Your task to perform on an android device: Add logitech g502 to the cart on bestbuy, then select checkout. Image 0: 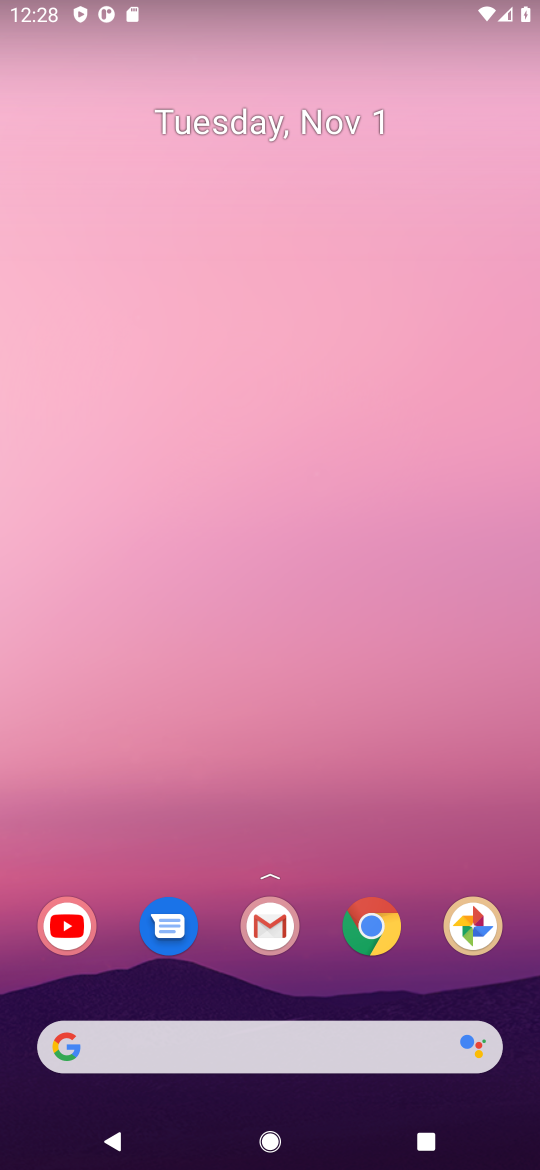
Step 0: click (382, 931)
Your task to perform on an android device: Add logitech g502 to the cart on bestbuy, then select checkout. Image 1: 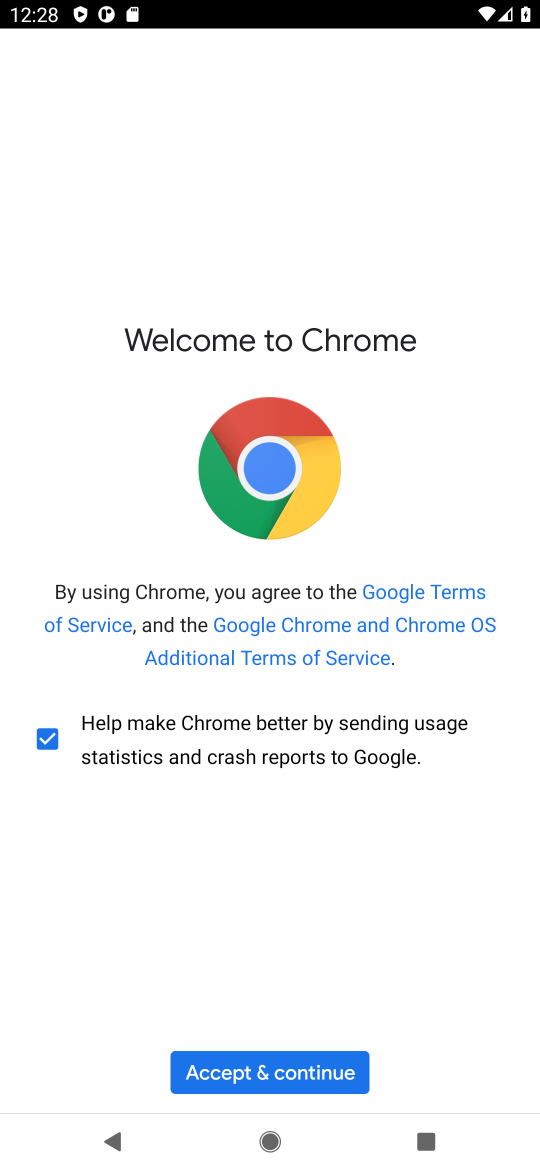
Step 1: click (243, 1083)
Your task to perform on an android device: Add logitech g502 to the cart on bestbuy, then select checkout. Image 2: 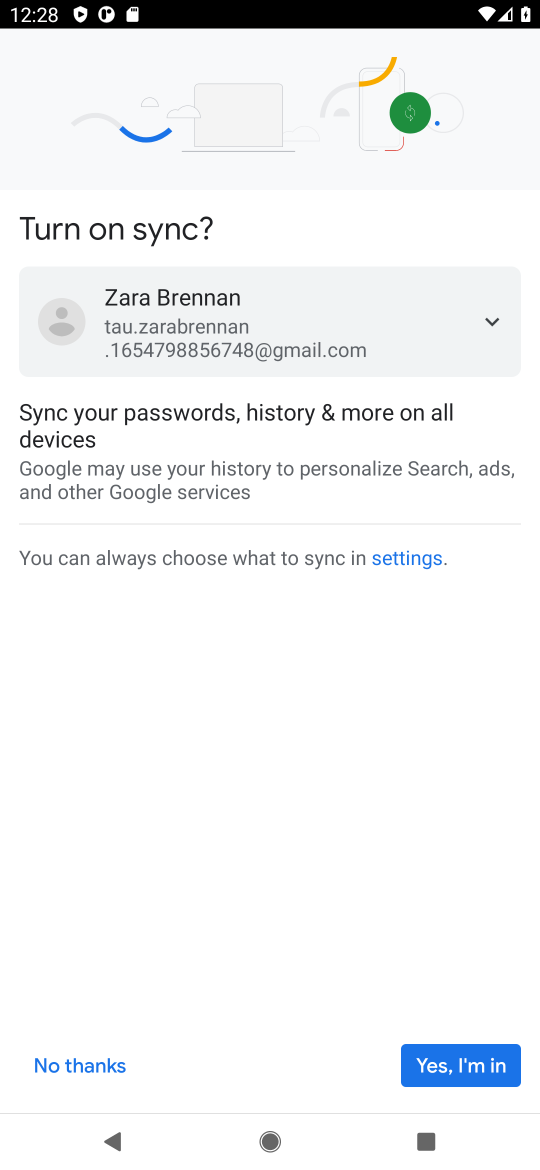
Step 2: click (413, 1059)
Your task to perform on an android device: Add logitech g502 to the cart on bestbuy, then select checkout. Image 3: 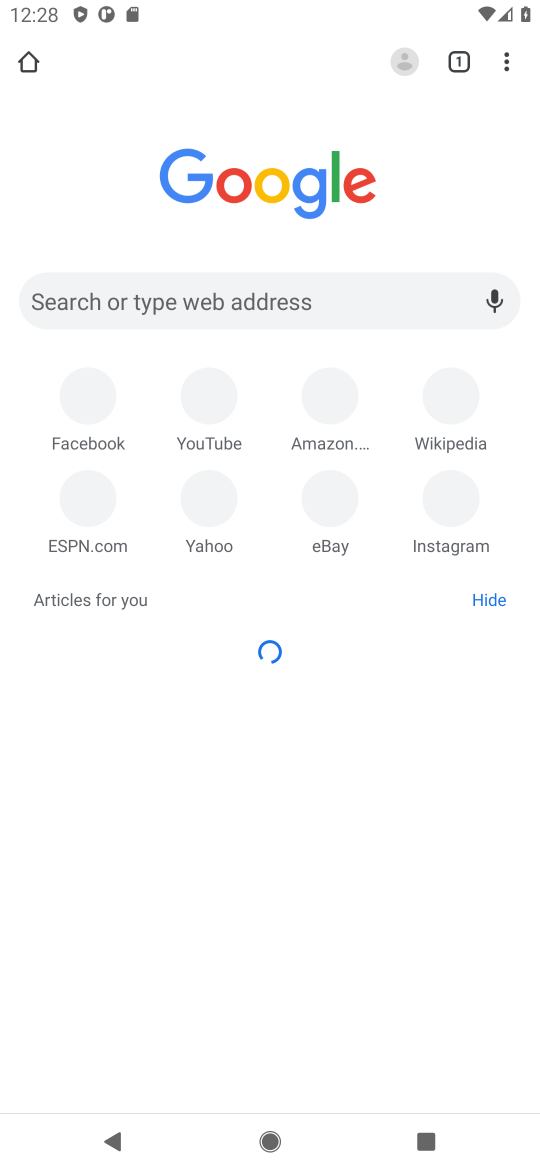
Step 3: click (173, 301)
Your task to perform on an android device: Add logitech g502 to the cart on bestbuy, then select checkout. Image 4: 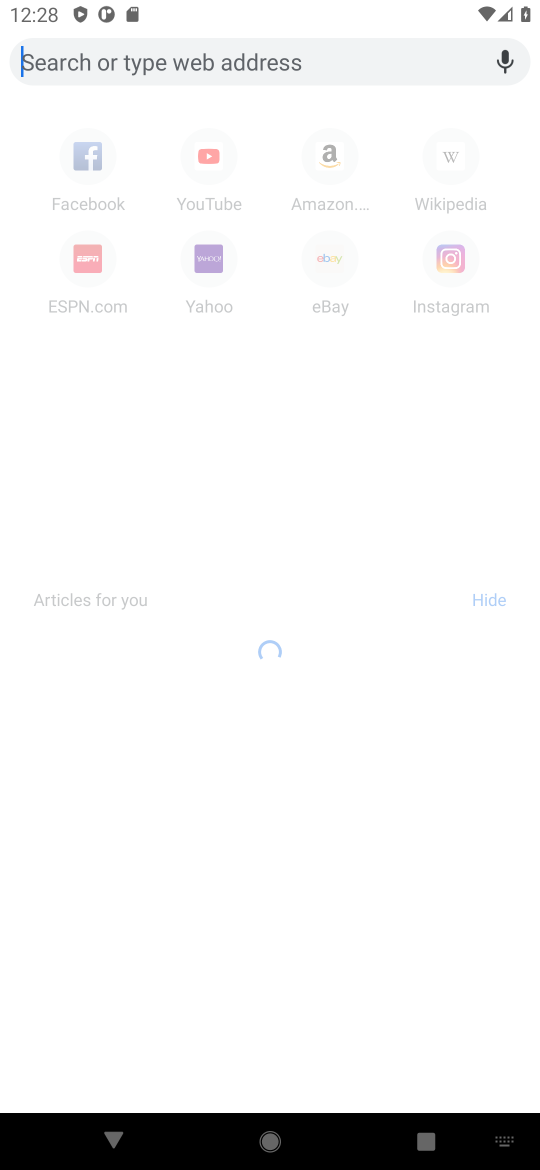
Step 4: type "bestbuy"
Your task to perform on an android device: Add logitech g502 to the cart on bestbuy, then select checkout. Image 5: 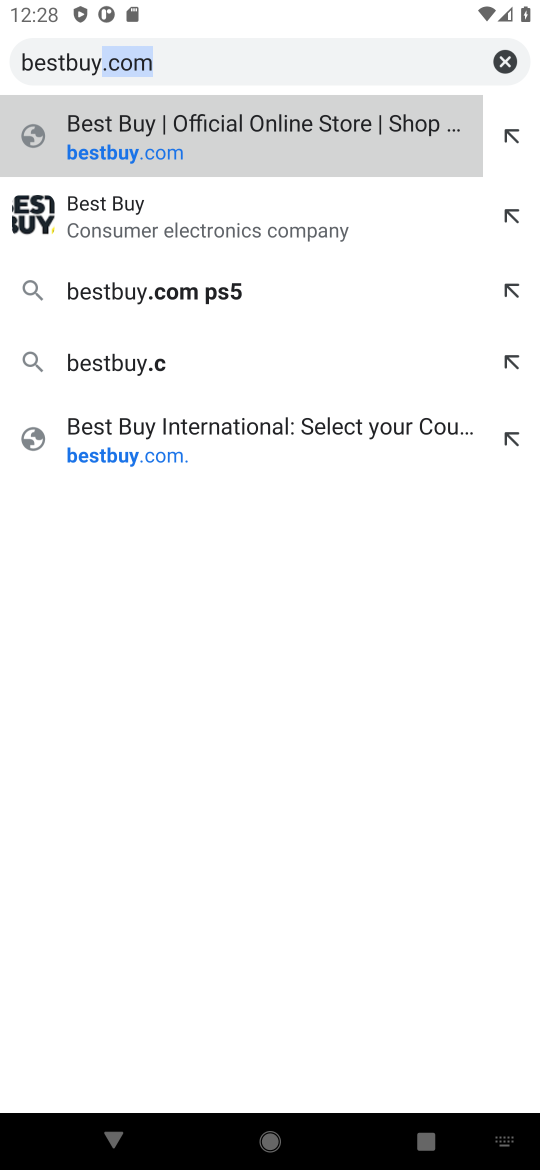
Step 5: click (183, 136)
Your task to perform on an android device: Add logitech g502 to the cart on bestbuy, then select checkout. Image 6: 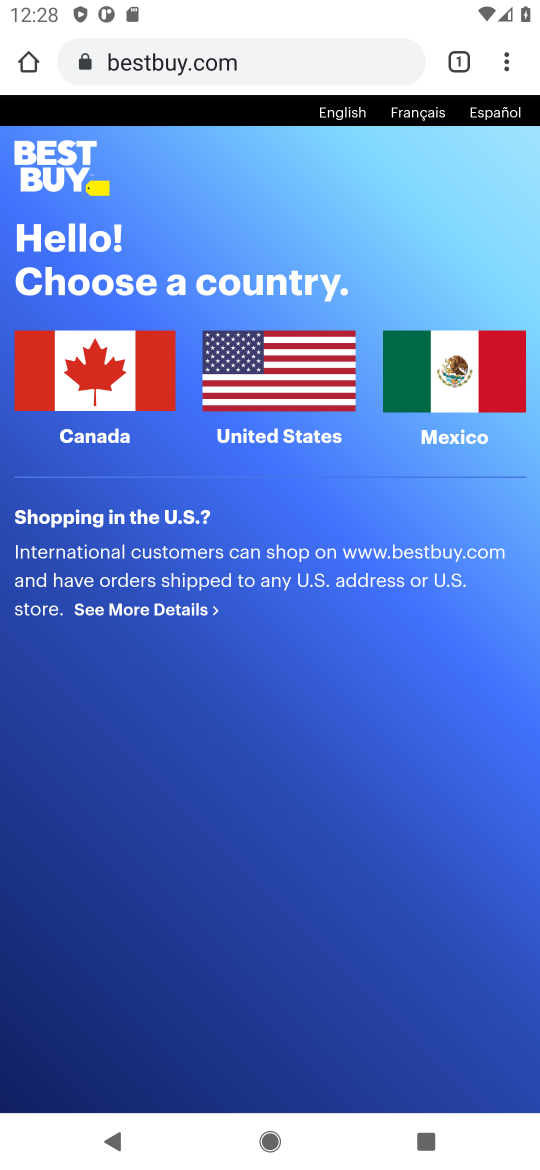
Step 6: click (237, 392)
Your task to perform on an android device: Add logitech g502 to the cart on bestbuy, then select checkout. Image 7: 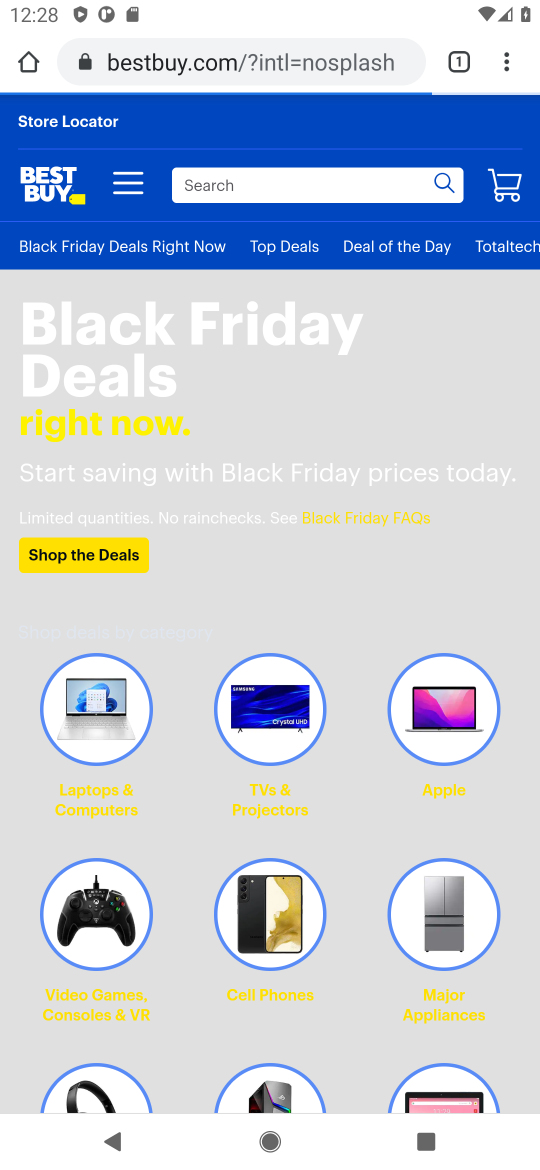
Step 7: click (246, 195)
Your task to perform on an android device: Add logitech g502 to the cart on bestbuy, then select checkout. Image 8: 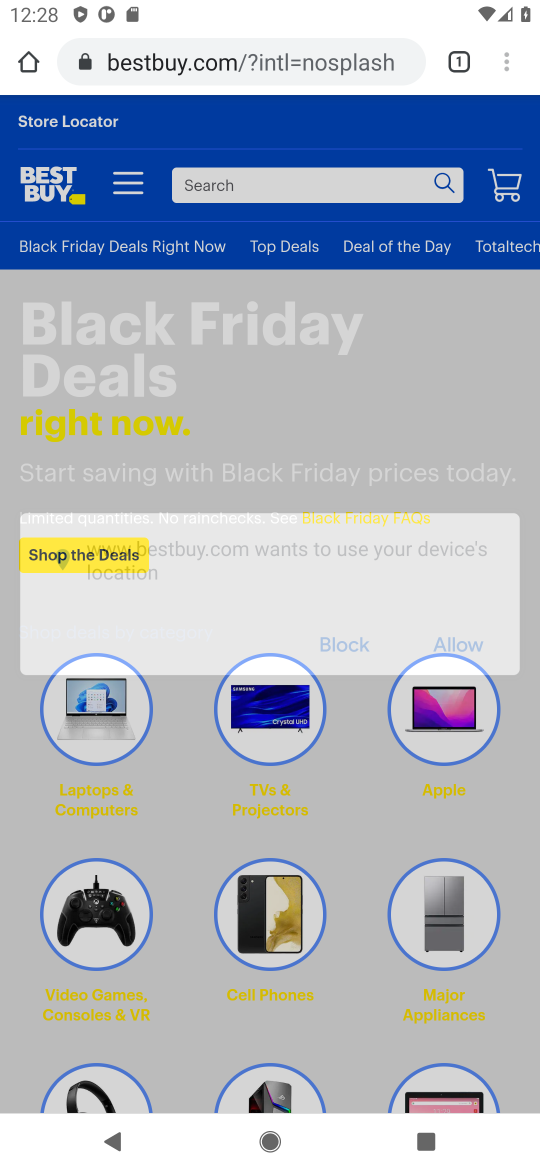
Step 8: type "logitech g502"
Your task to perform on an android device: Add logitech g502 to the cart on bestbuy, then select checkout. Image 9: 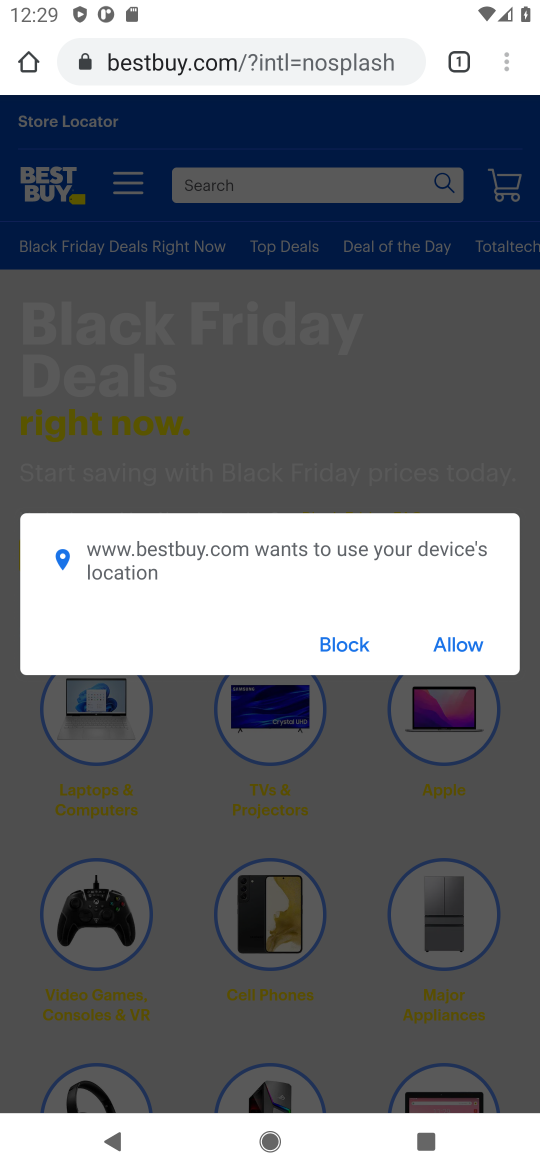
Step 9: click (341, 638)
Your task to perform on an android device: Add logitech g502 to the cart on bestbuy, then select checkout. Image 10: 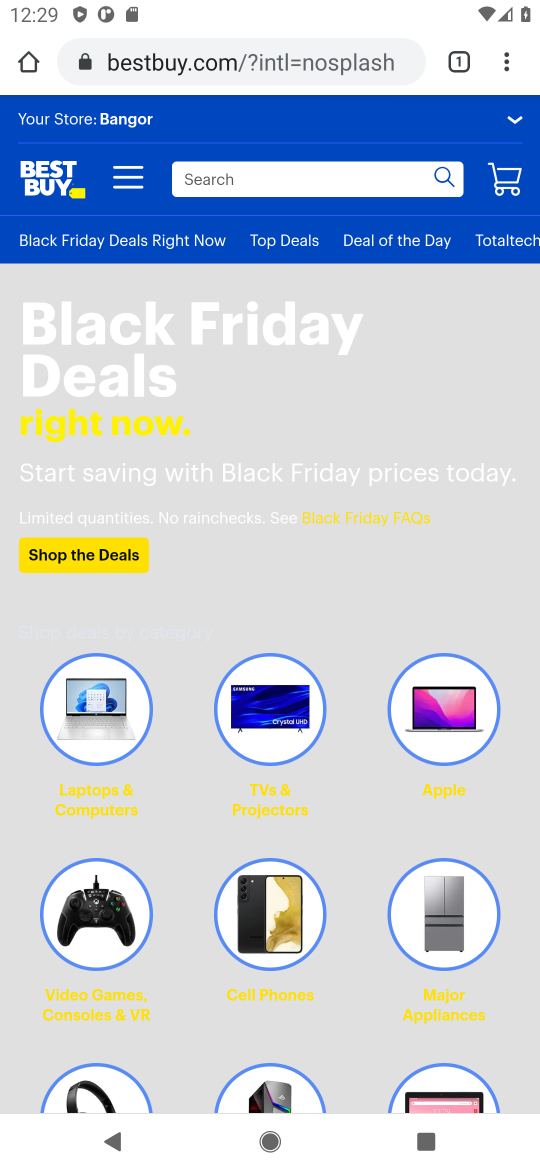
Step 10: click (223, 174)
Your task to perform on an android device: Add logitech g502 to the cart on bestbuy, then select checkout. Image 11: 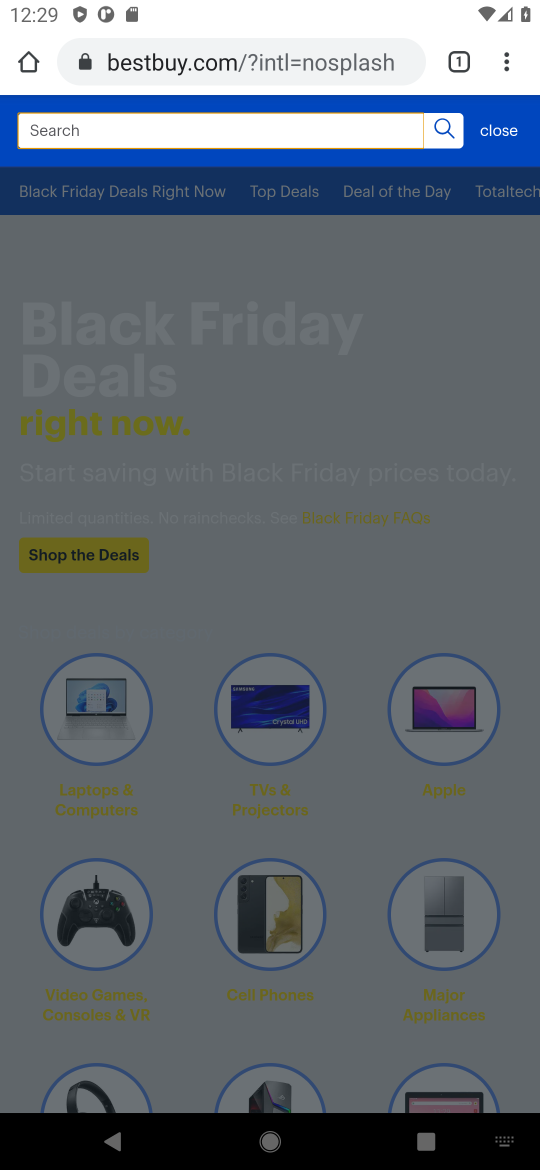
Step 11: type "logitech g502"
Your task to perform on an android device: Add logitech g502 to the cart on bestbuy, then select checkout. Image 12: 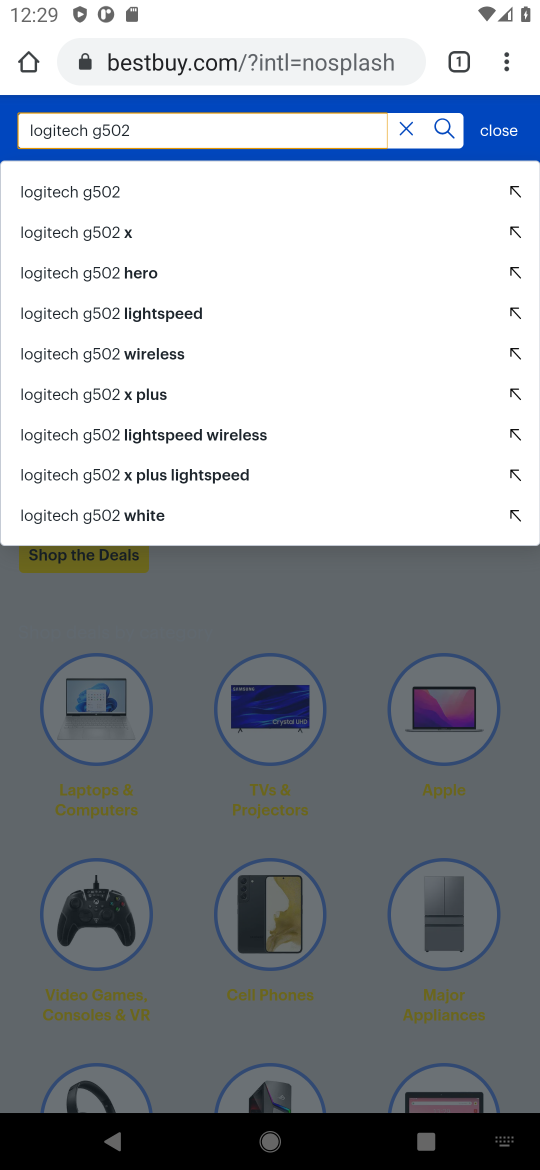
Step 12: click (185, 197)
Your task to perform on an android device: Add logitech g502 to the cart on bestbuy, then select checkout. Image 13: 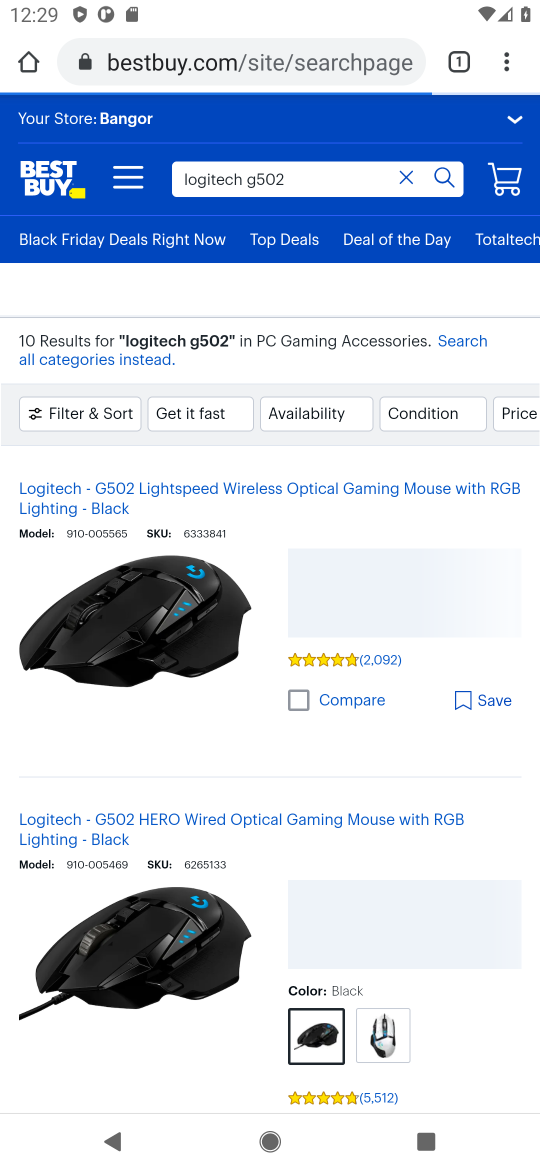
Step 13: click (169, 499)
Your task to perform on an android device: Add logitech g502 to the cart on bestbuy, then select checkout. Image 14: 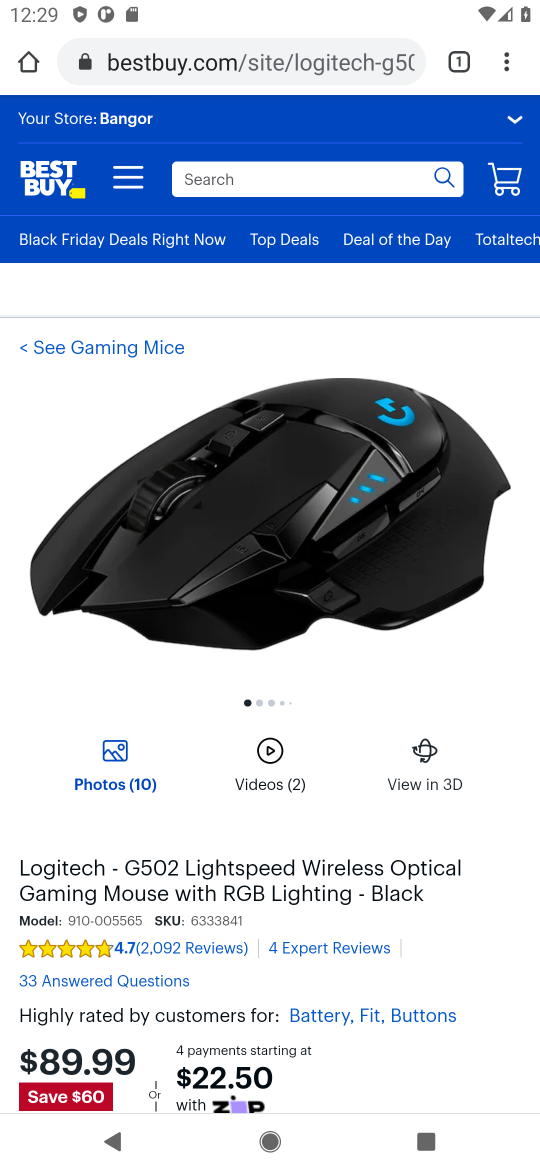
Step 14: drag from (233, 955) to (277, 401)
Your task to perform on an android device: Add logitech g502 to the cart on bestbuy, then select checkout. Image 15: 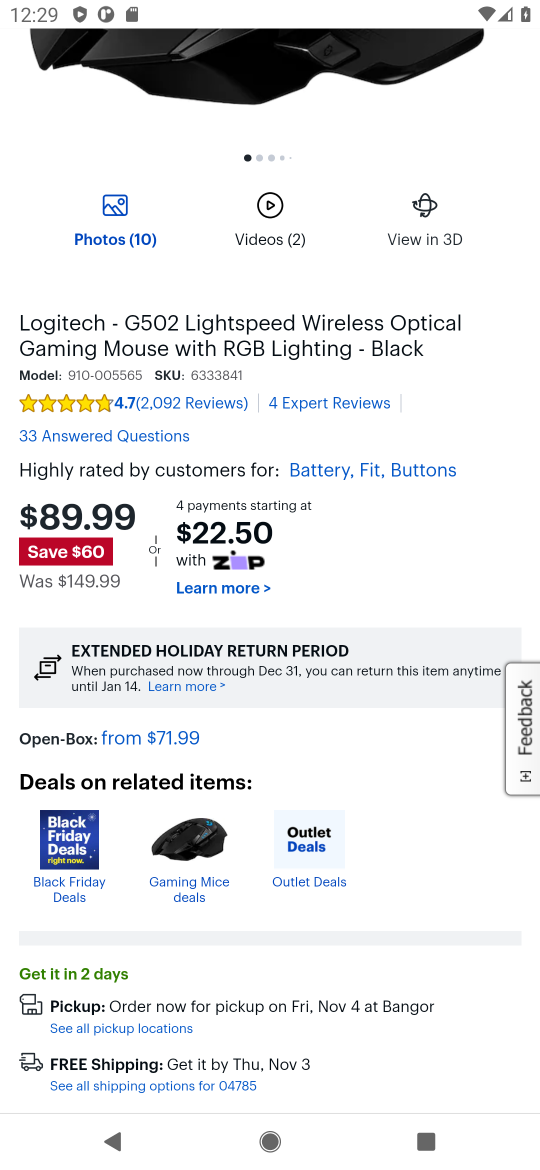
Step 15: drag from (324, 538) to (347, 406)
Your task to perform on an android device: Add logitech g502 to the cart on bestbuy, then select checkout. Image 16: 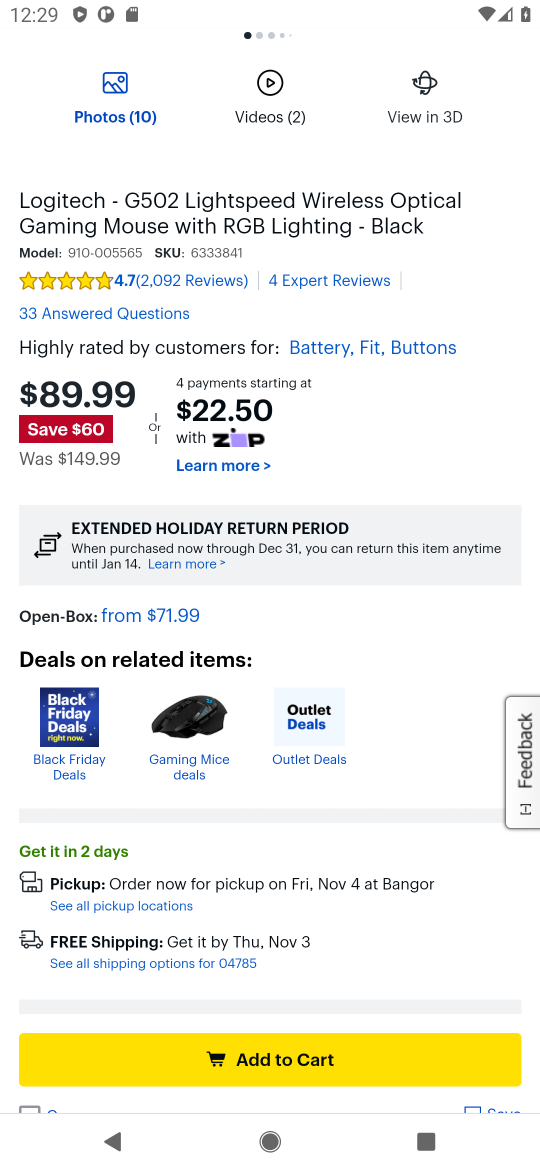
Step 16: click (304, 1052)
Your task to perform on an android device: Add logitech g502 to the cart on bestbuy, then select checkout. Image 17: 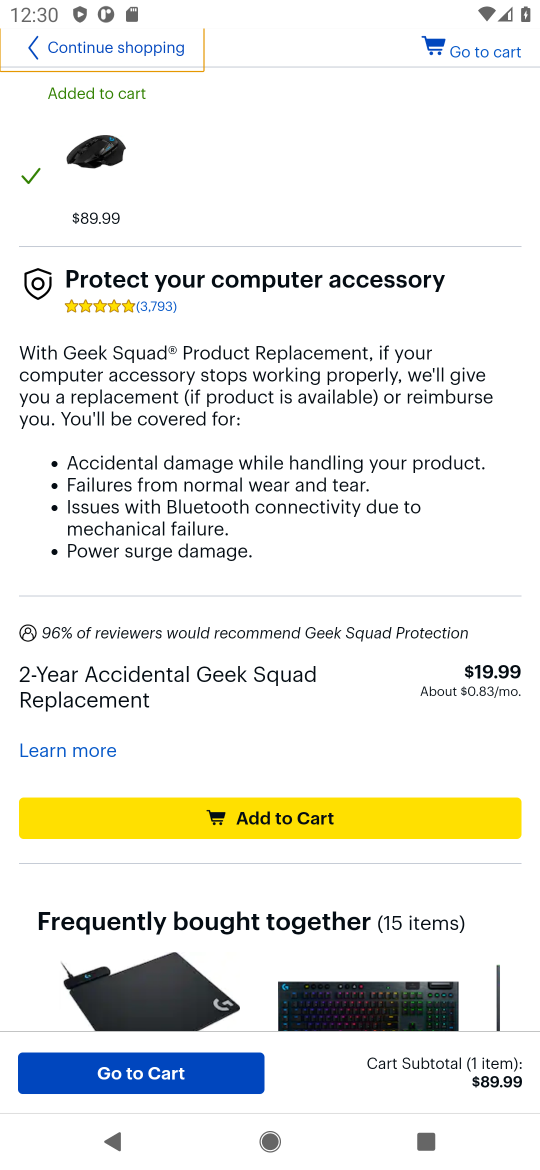
Step 17: click (485, 51)
Your task to perform on an android device: Add logitech g502 to the cart on bestbuy, then select checkout. Image 18: 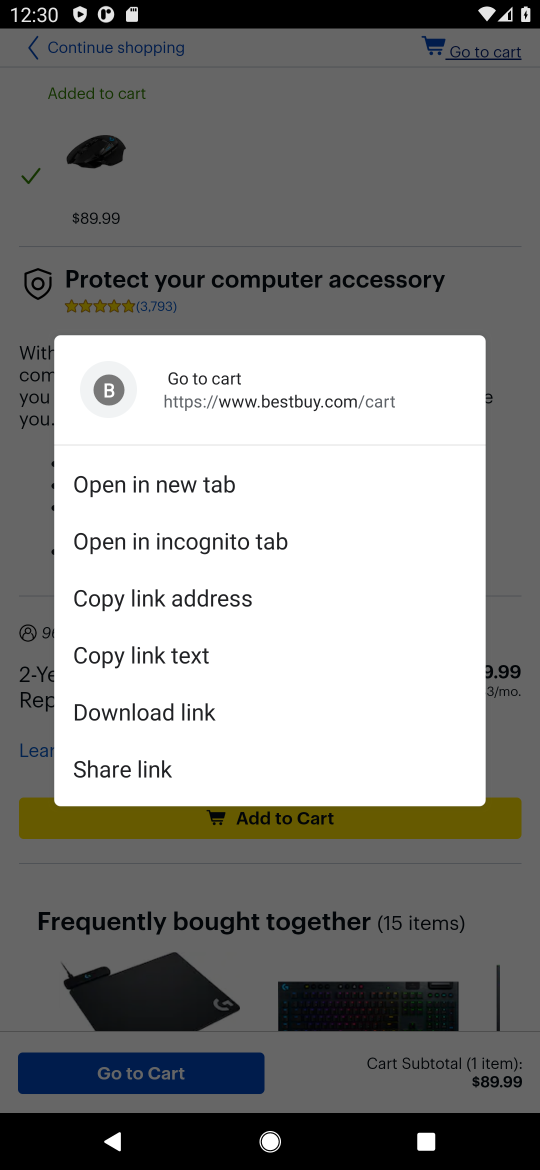
Step 18: click (255, 253)
Your task to perform on an android device: Add logitech g502 to the cart on bestbuy, then select checkout. Image 19: 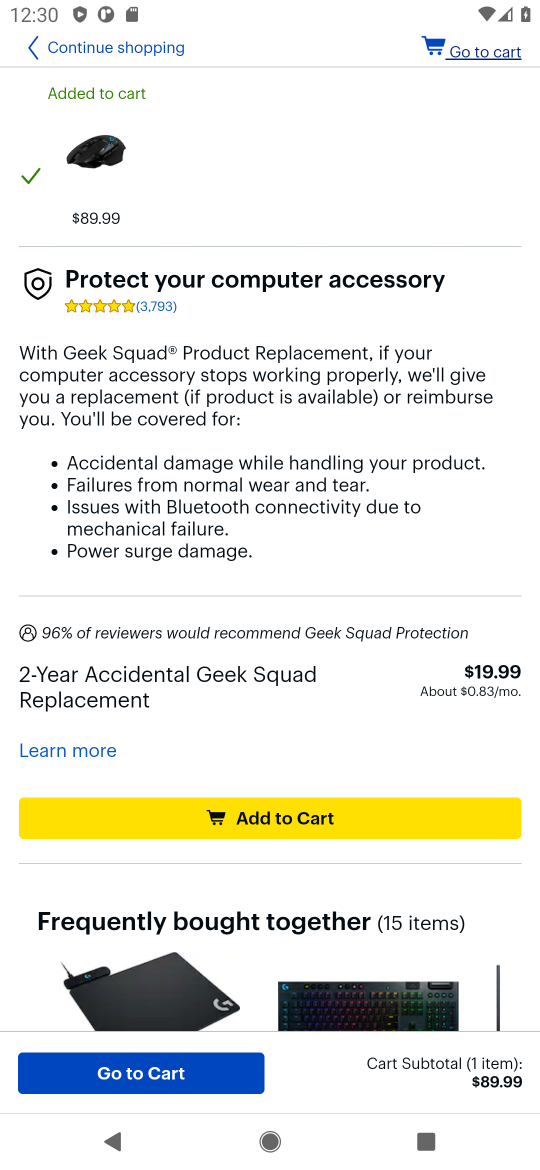
Step 19: click (309, 818)
Your task to perform on an android device: Add logitech g502 to the cart on bestbuy, then select checkout. Image 20: 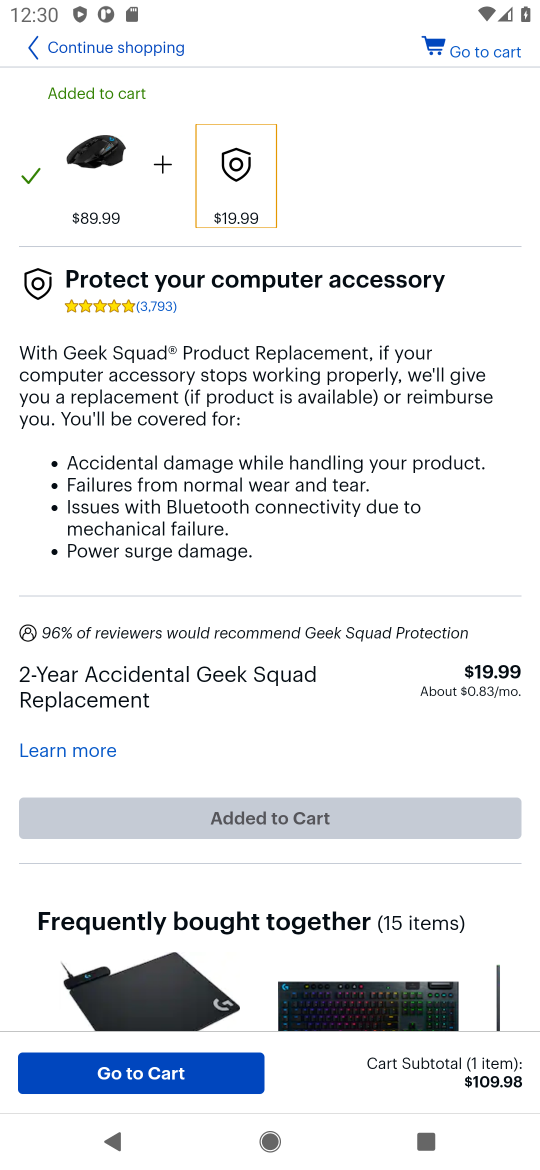
Step 20: click (200, 1060)
Your task to perform on an android device: Add logitech g502 to the cart on bestbuy, then select checkout. Image 21: 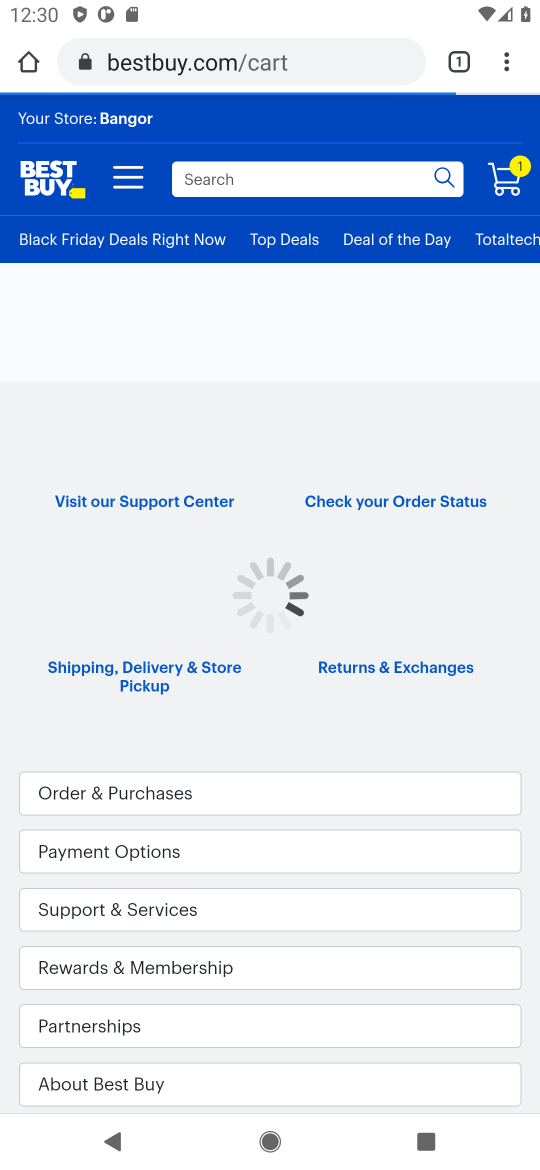
Step 21: click (501, 181)
Your task to perform on an android device: Add logitech g502 to the cart on bestbuy, then select checkout. Image 22: 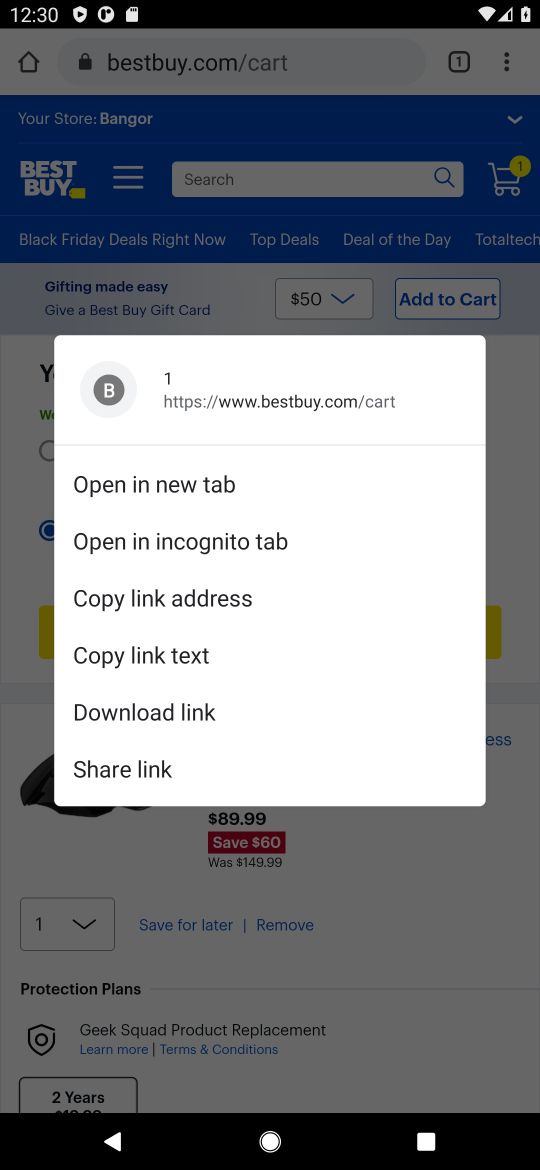
Step 22: click (513, 424)
Your task to perform on an android device: Add logitech g502 to the cart on bestbuy, then select checkout. Image 23: 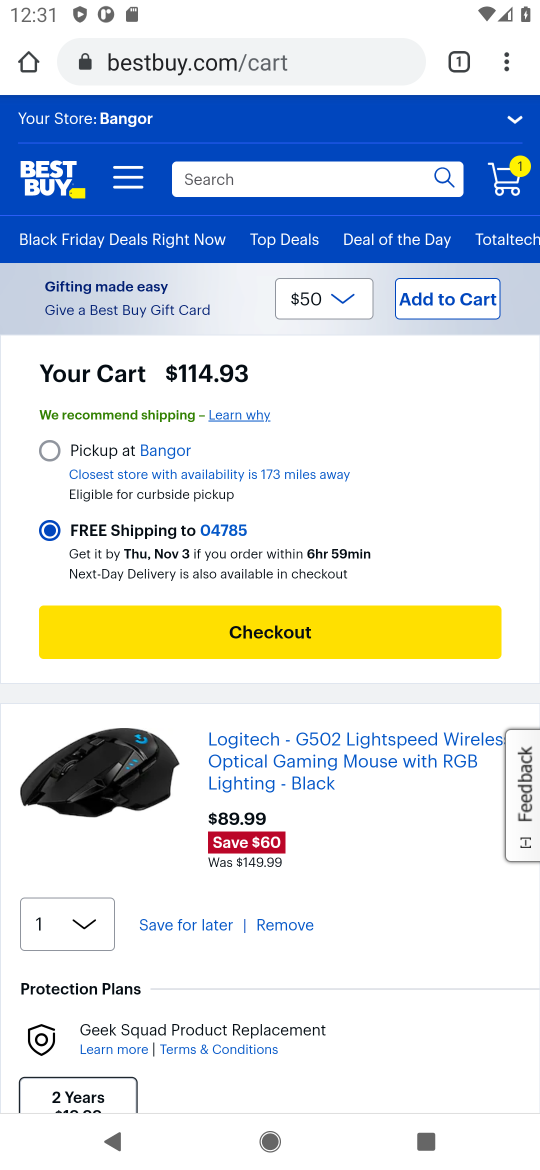
Step 23: click (309, 603)
Your task to perform on an android device: Add logitech g502 to the cart on bestbuy, then select checkout. Image 24: 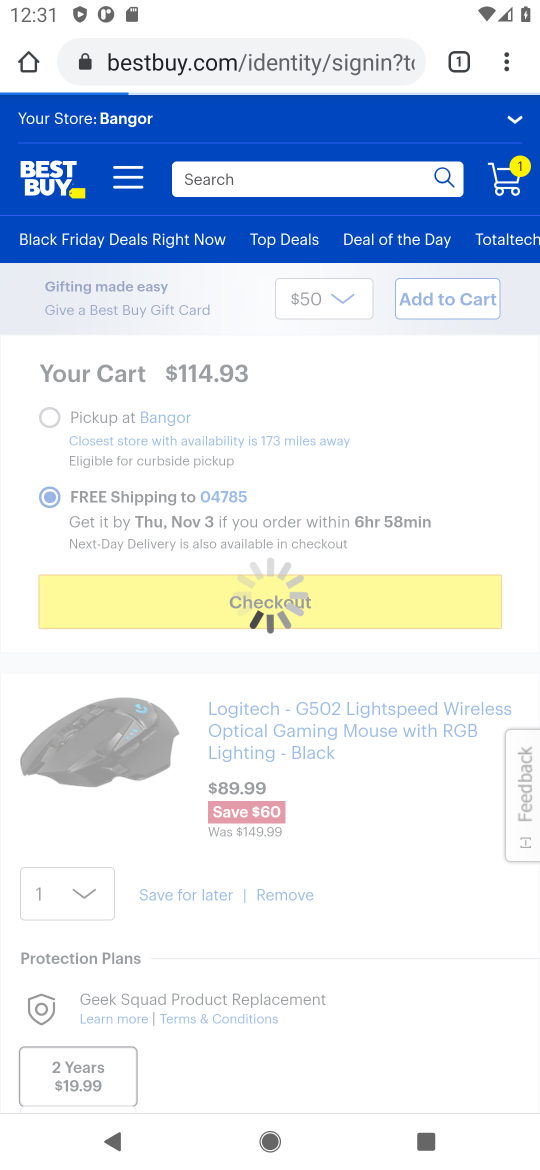
Step 24: task complete